Your task to perform on an android device: clear history in the chrome app Image 0: 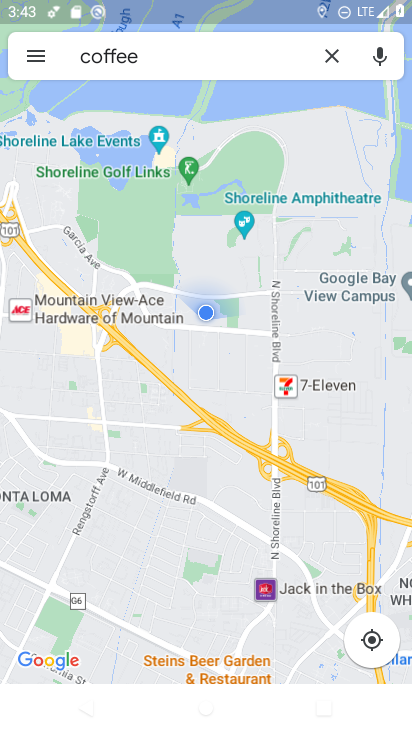
Step 0: press home button
Your task to perform on an android device: clear history in the chrome app Image 1: 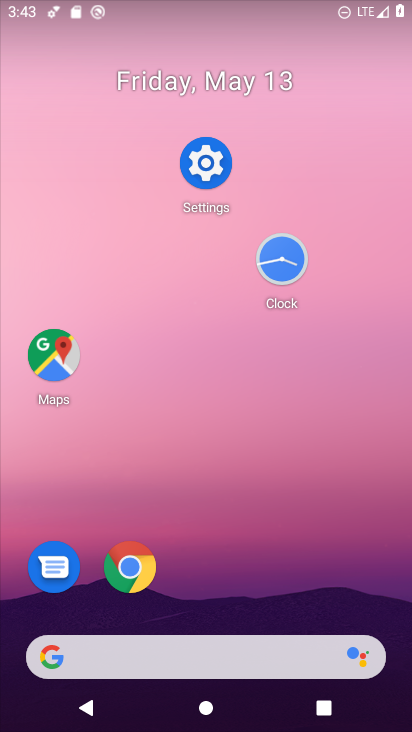
Step 1: click (196, 174)
Your task to perform on an android device: clear history in the chrome app Image 2: 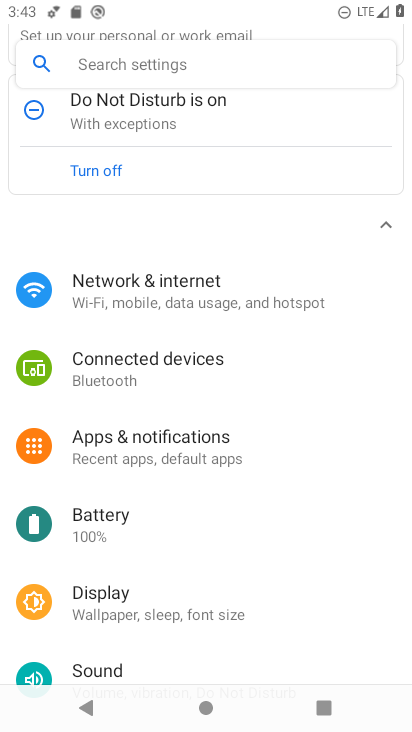
Step 2: press home button
Your task to perform on an android device: clear history in the chrome app Image 3: 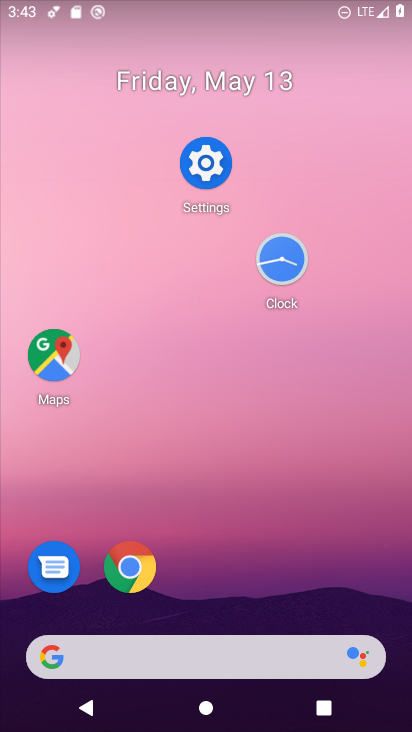
Step 3: click (144, 559)
Your task to perform on an android device: clear history in the chrome app Image 4: 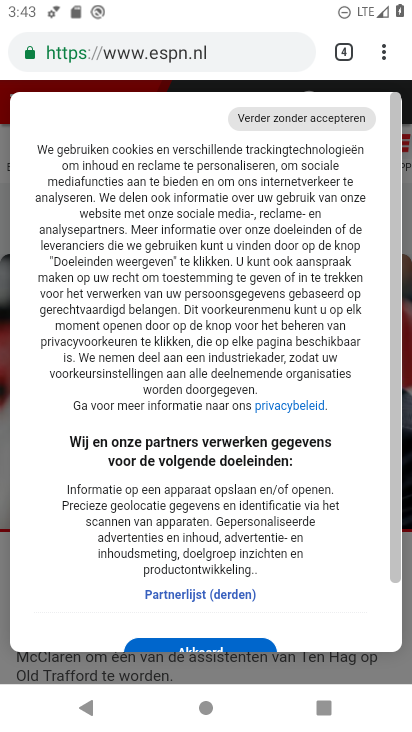
Step 4: click (391, 52)
Your task to perform on an android device: clear history in the chrome app Image 5: 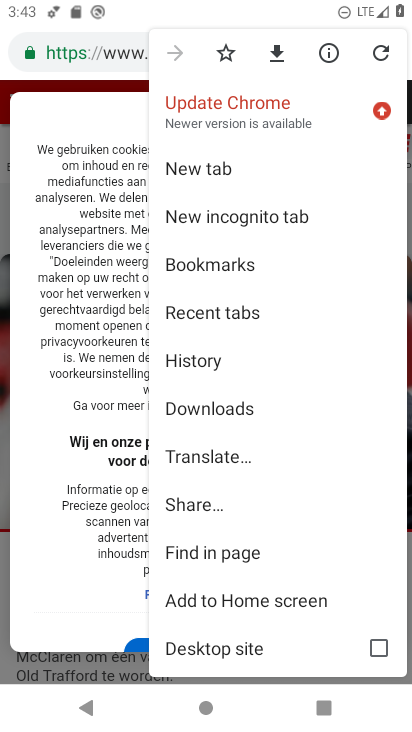
Step 5: drag from (240, 574) to (246, 341)
Your task to perform on an android device: clear history in the chrome app Image 6: 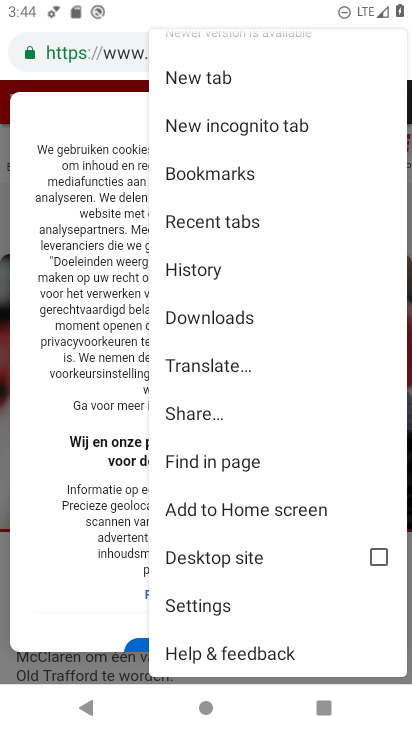
Step 6: click (210, 614)
Your task to perform on an android device: clear history in the chrome app Image 7: 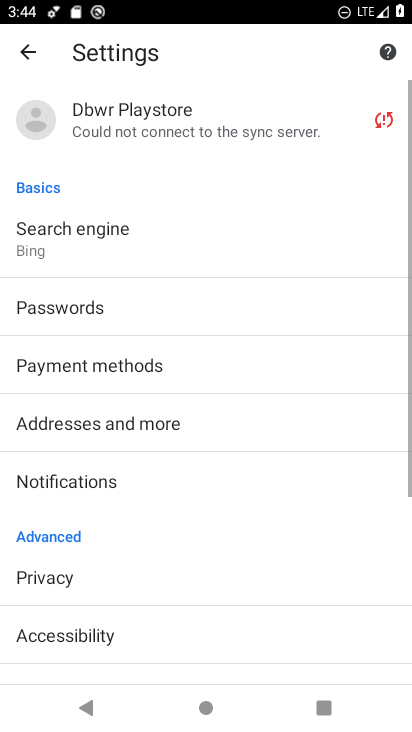
Step 7: click (18, 39)
Your task to perform on an android device: clear history in the chrome app Image 8: 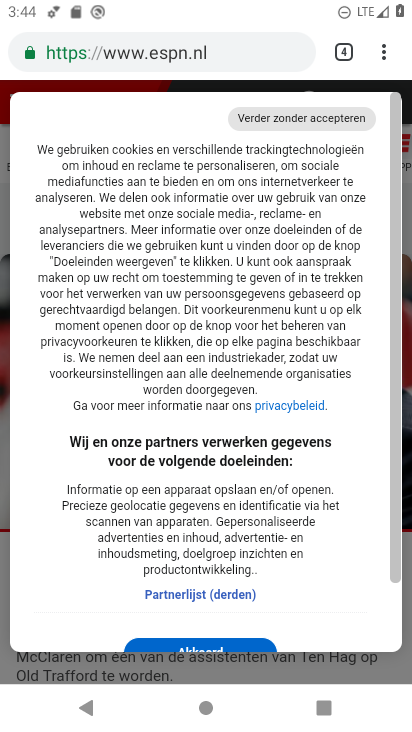
Step 8: click (391, 46)
Your task to perform on an android device: clear history in the chrome app Image 9: 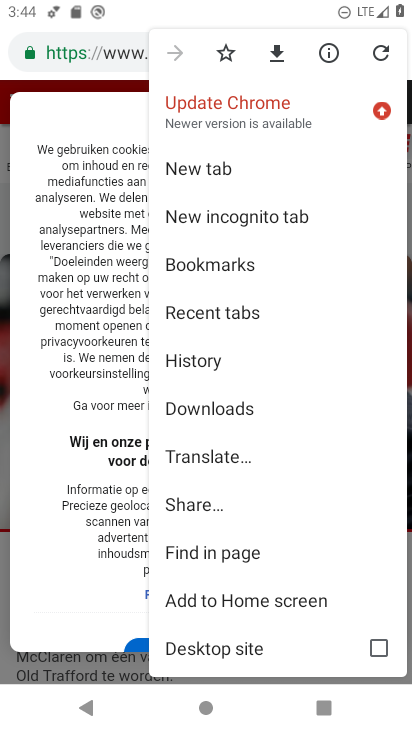
Step 9: click (251, 368)
Your task to perform on an android device: clear history in the chrome app Image 10: 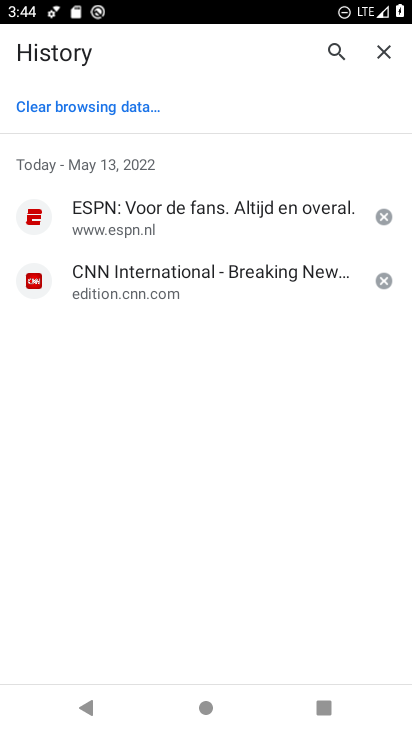
Step 10: click (106, 124)
Your task to perform on an android device: clear history in the chrome app Image 11: 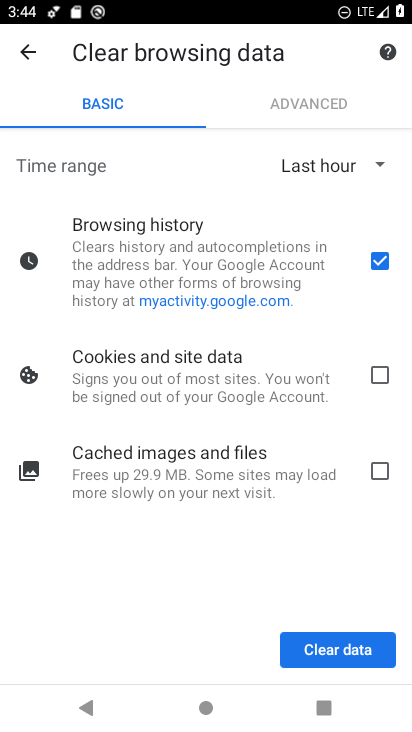
Step 11: click (341, 645)
Your task to perform on an android device: clear history in the chrome app Image 12: 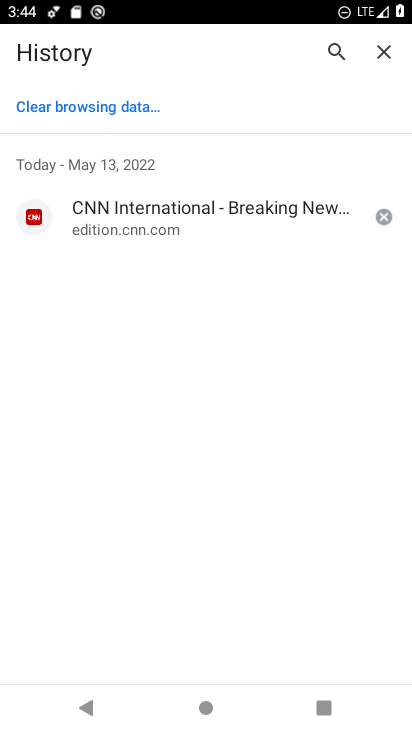
Step 12: task complete